Your task to perform on an android device: snooze an email in the gmail app Image 0: 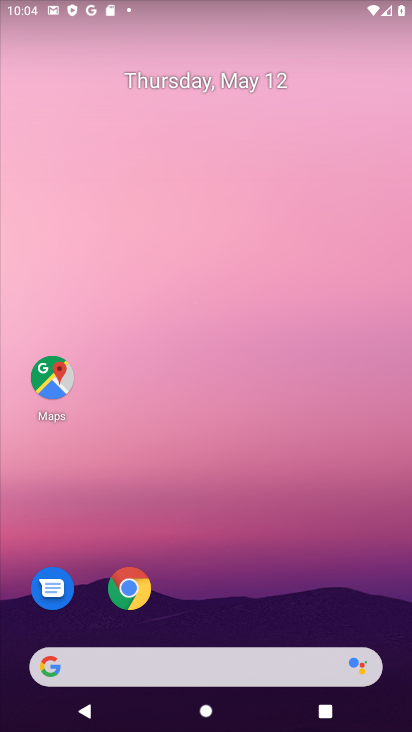
Step 0: drag from (160, 657) to (160, 264)
Your task to perform on an android device: snooze an email in the gmail app Image 1: 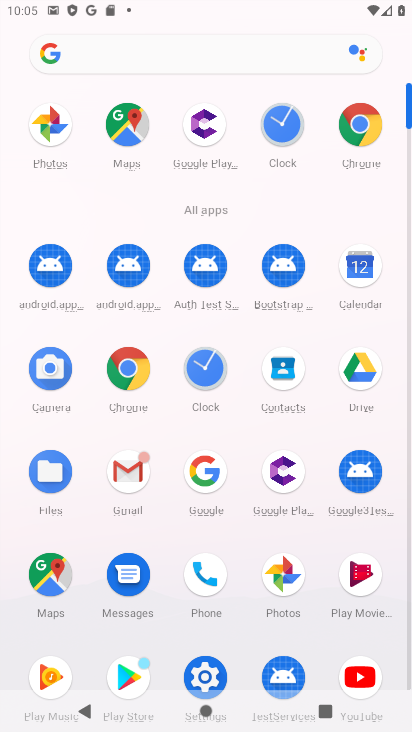
Step 1: click (123, 478)
Your task to perform on an android device: snooze an email in the gmail app Image 2: 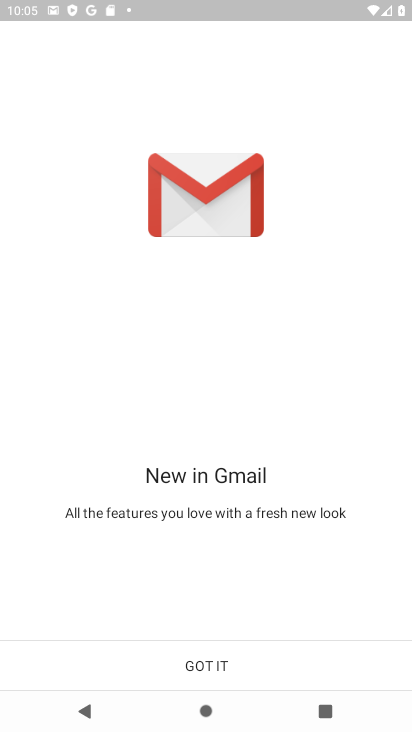
Step 2: click (213, 665)
Your task to perform on an android device: snooze an email in the gmail app Image 3: 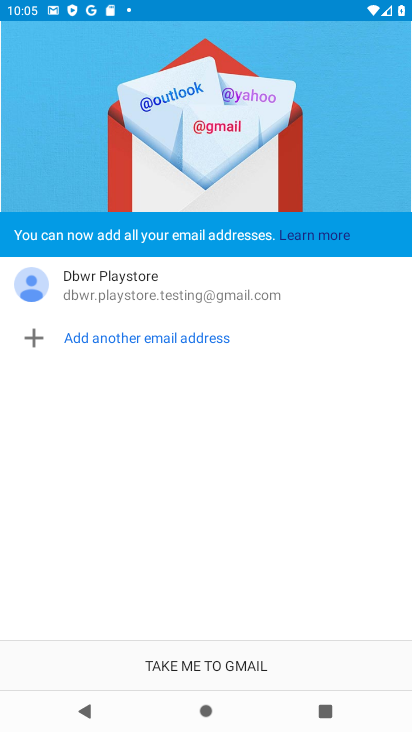
Step 3: click (213, 665)
Your task to perform on an android device: snooze an email in the gmail app Image 4: 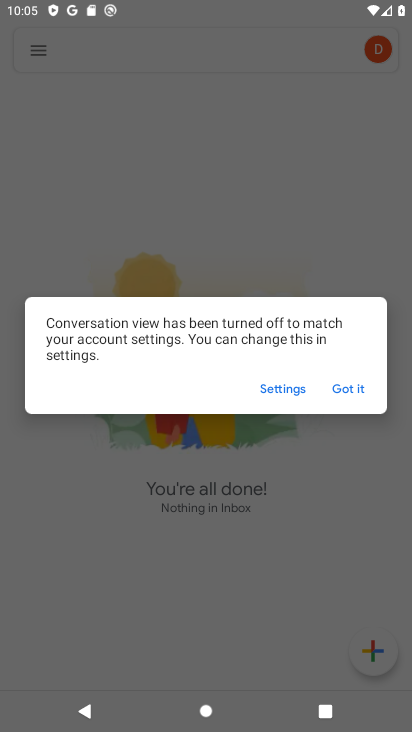
Step 4: click (344, 393)
Your task to perform on an android device: snooze an email in the gmail app Image 5: 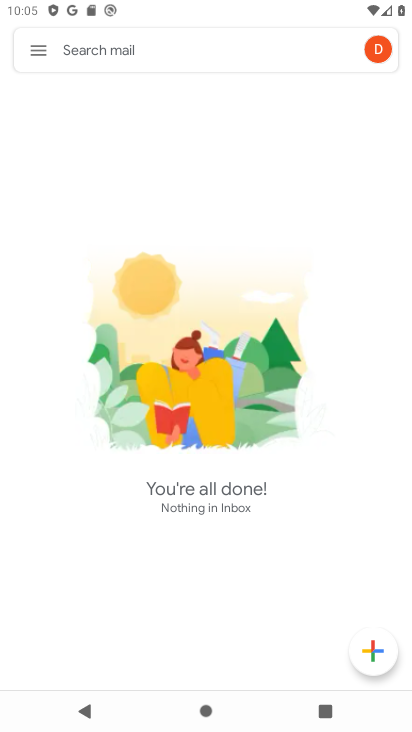
Step 5: click (36, 53)
Your task to perform on an android device: snooze an email in the gmail app Image 6: 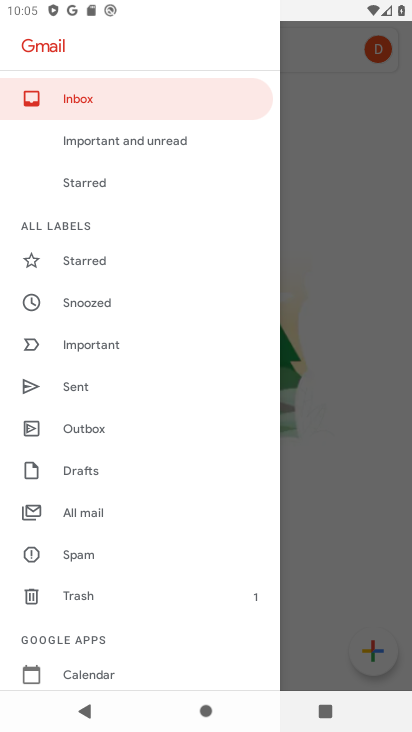
Step 6: click (72, 313)
Your task to perform on an android device: snooze an email in the gmail app Image 7: 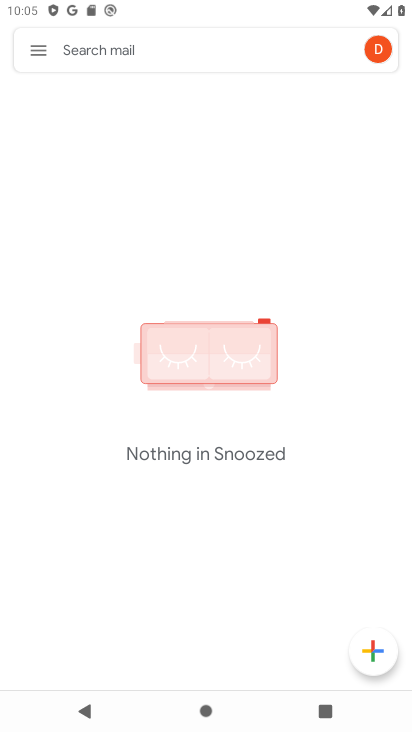
Step 7: task complete